Your task to perform on an android device: toggle translation in the chrome app Image 0: 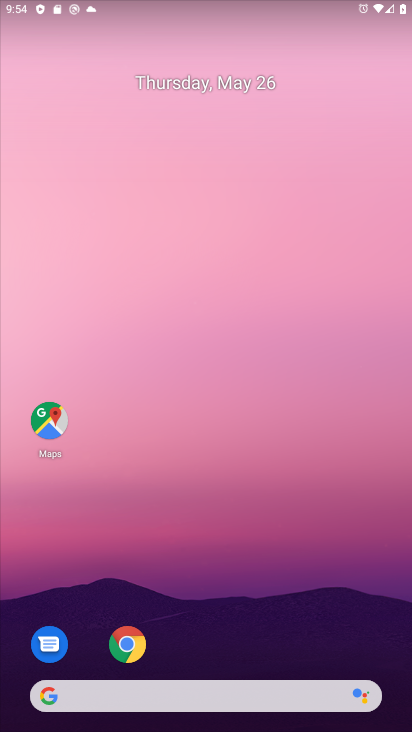
Step 0: click (120, 640)
Your task to perform on an android device: toggle translation in the chrome app Image 1: 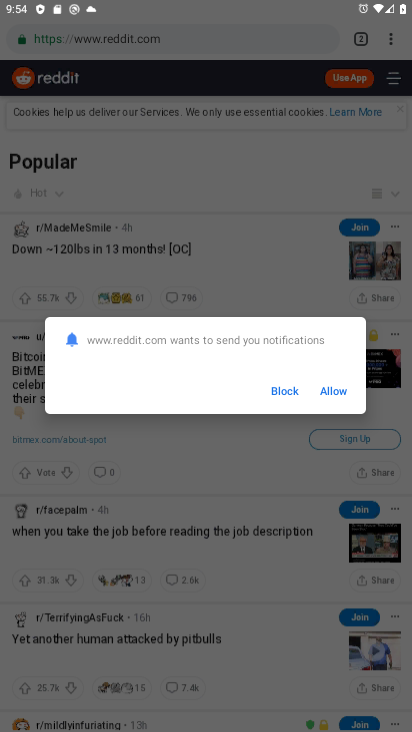
Step 1: click (319, 385)
Your task to perform on an android device: toggle translation in the chrome app Image 2: 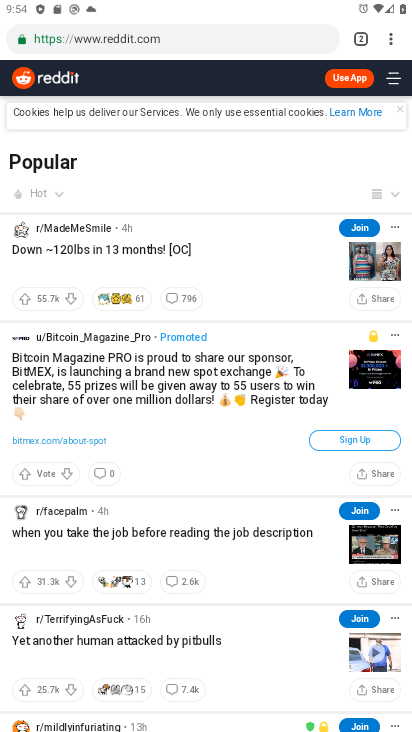
Step 2: click (383, 33)
Your task to perform on an android device: toggle translation in the chrome app Image 3: 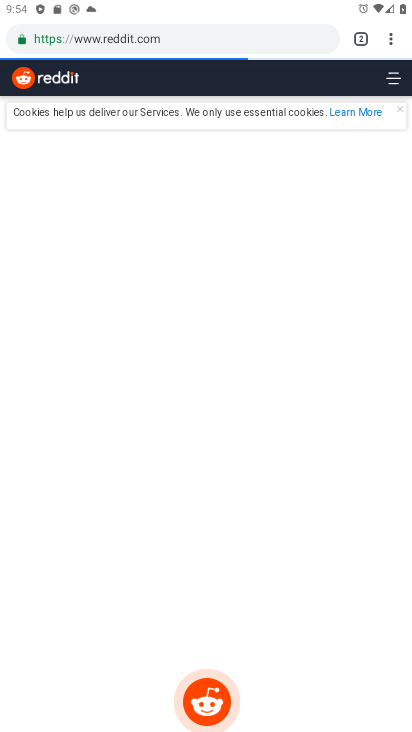
Step 3: click (386, 42)
Your task to perform on an android device: toggle translation in the chrome app Image 4: 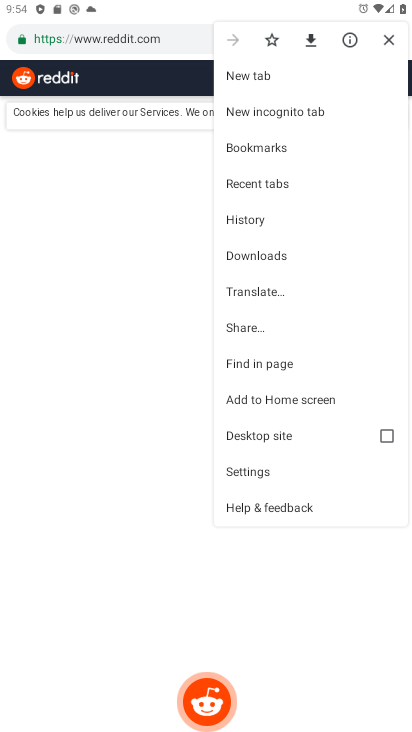
Step 4: click (258, 476)
Your task to perform on an android device: toggle translation in the chrome app Image 5: 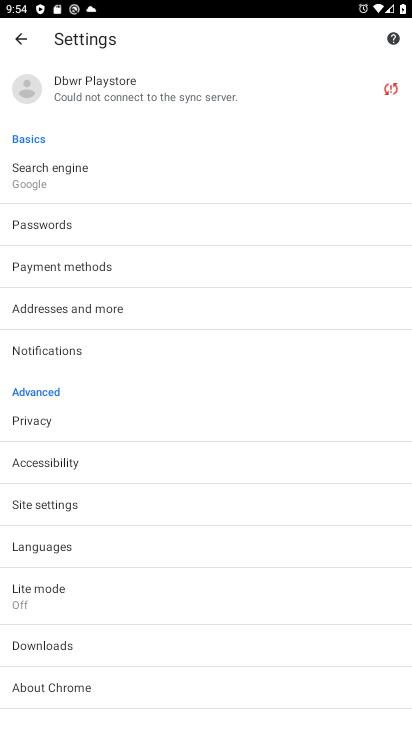
Step 5: click (76, 541)
Your task to perform on an android device: toggle translation in the chrome app Image 6: 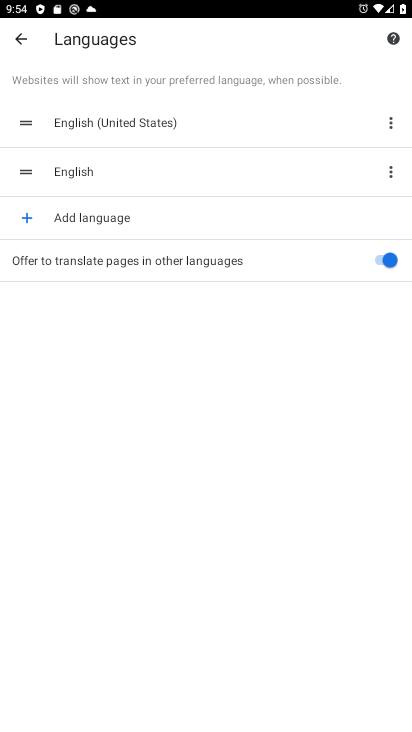
Step 6: click (376, 254)
Your task to perform on an android device: toggle translation in the chrome app Image 7: 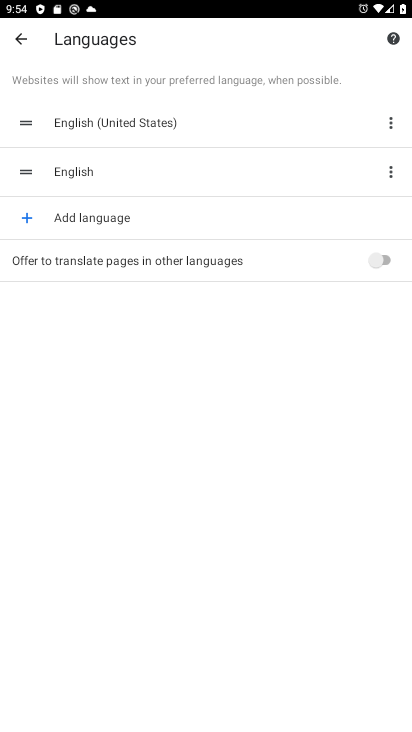
Step 7: task complete